Your task to perform on an android device: Show me recent news Image 0: 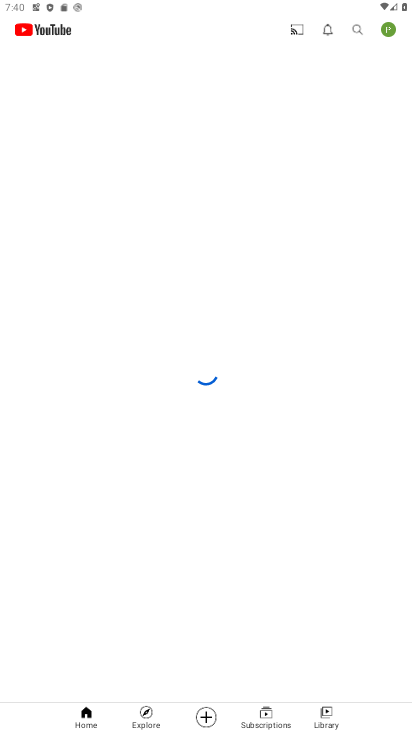
Step 0: press home button
Your task to perform on an android device: Show me recent news Image 1: 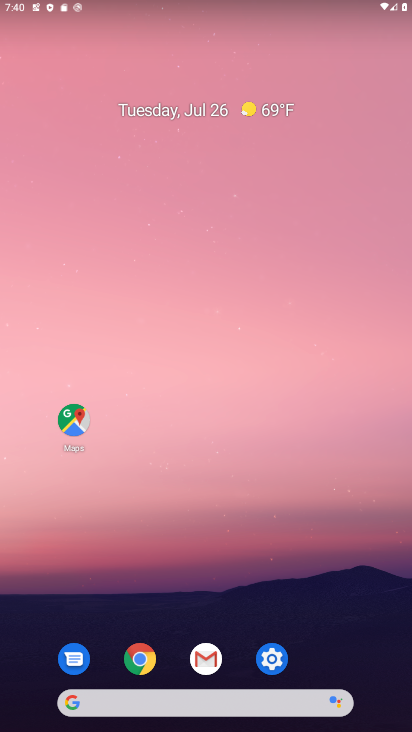
Step 1: click (229, 701)
Your task to perform on an android device: Show me recent news Image 2: 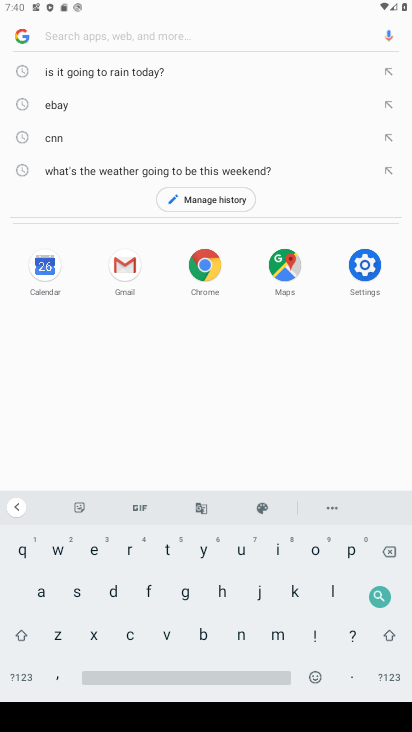
Step 2: click (125, 547)
Your task to perform on an android device: Show me recent news Image 3: 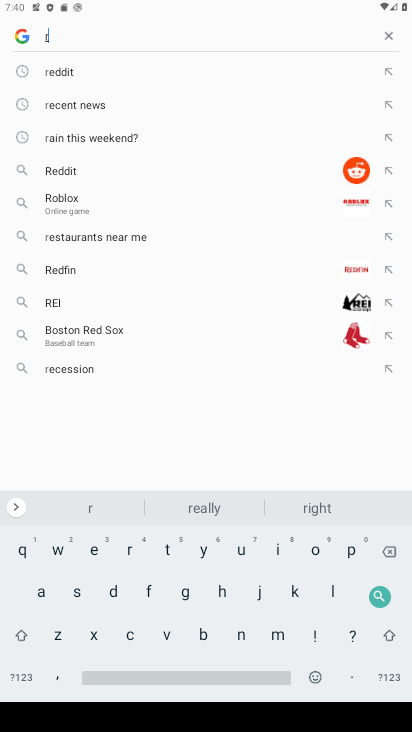
Step 3: click (95, 550)
Your task to perform on an android device: Show me recent news Image 4: 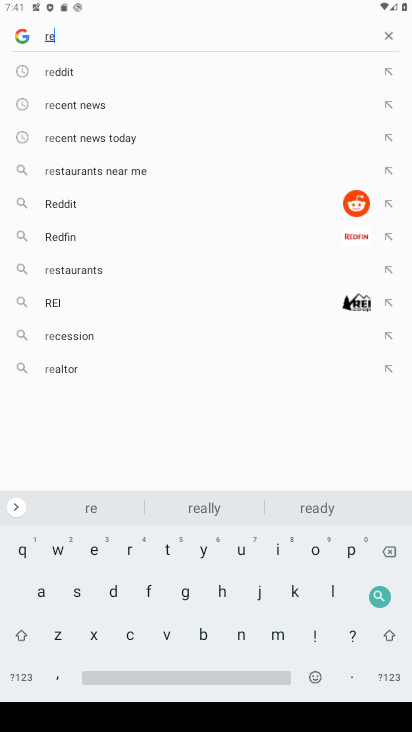
Step 4: click (69, 103)
Your task to perform on an android device: Show me recent news Image 5: 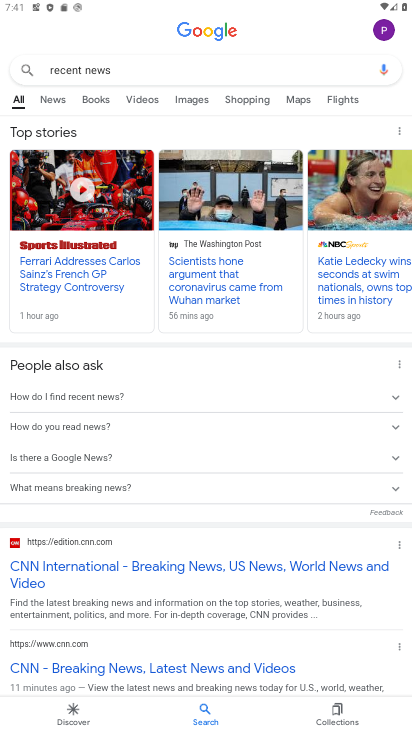
Step 5: task complete